Your task to perform on an android device: uninstall "Yahoo Mail" Image 0: 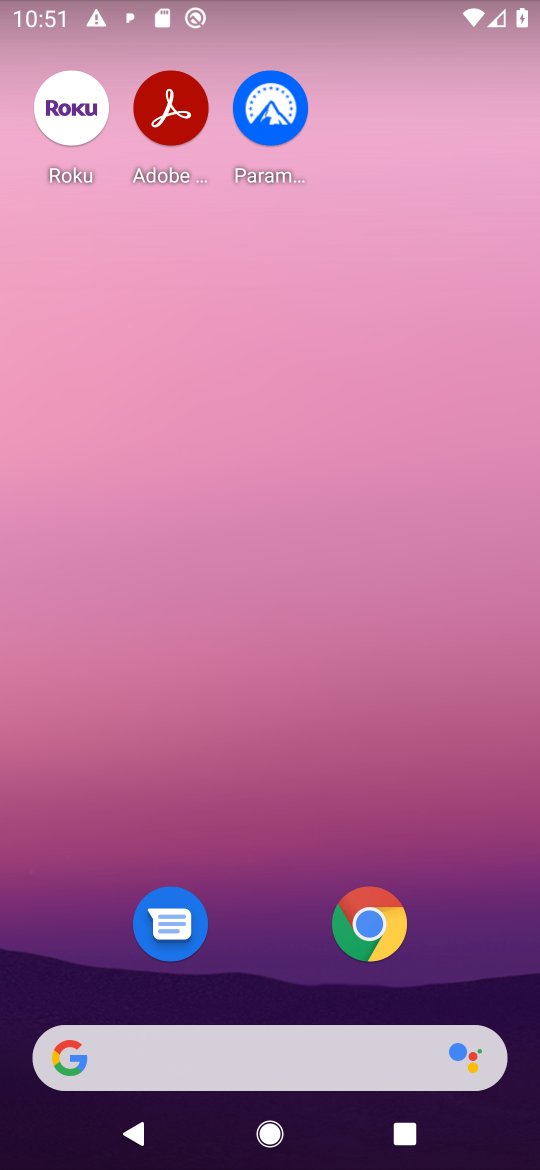
Step 0: press home button
Your task to perform on an android device: uninstall "Yahoo Mail" Image 1: 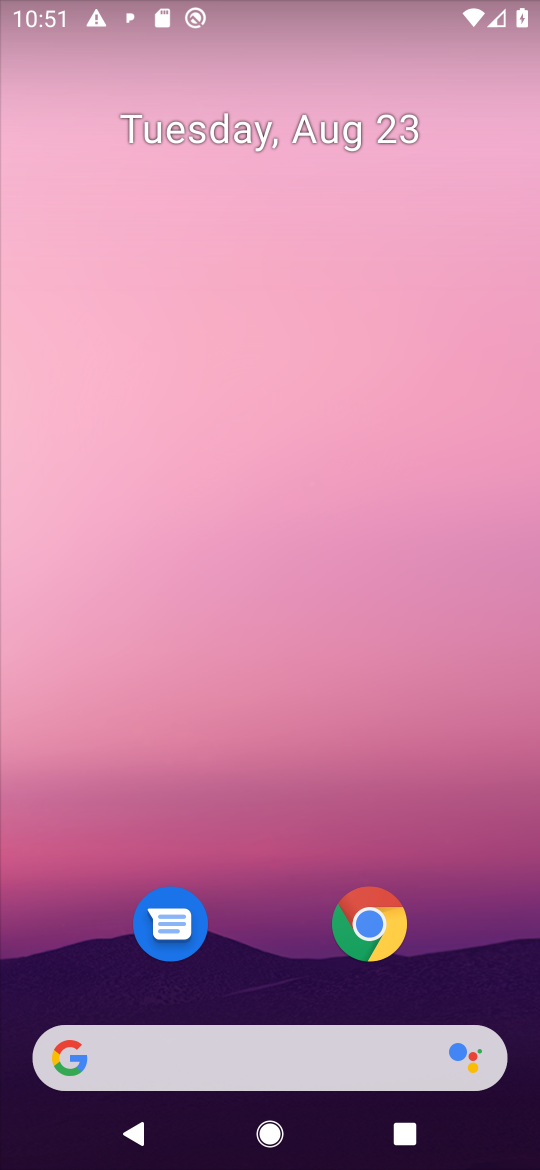
Step 1: drag from (454, 971) to (471, 111)
Your task to perform on an android device: uninstall "Yahoo Mail" Image 2: 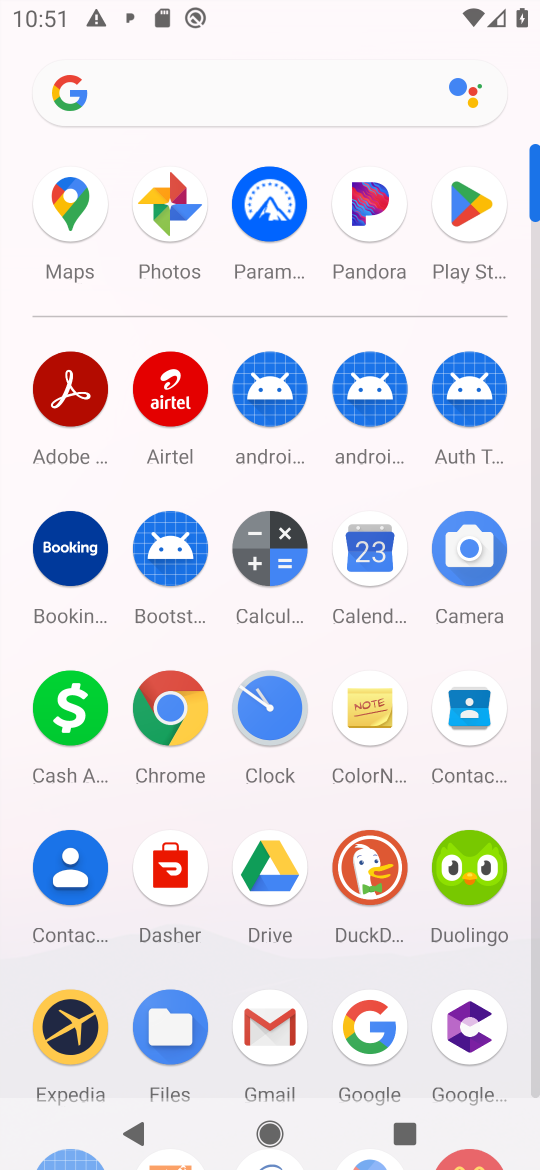
Step 2: click (463, 212)
Your task to perform on an android device: uninstall "Yahoo Mail" Image 3: 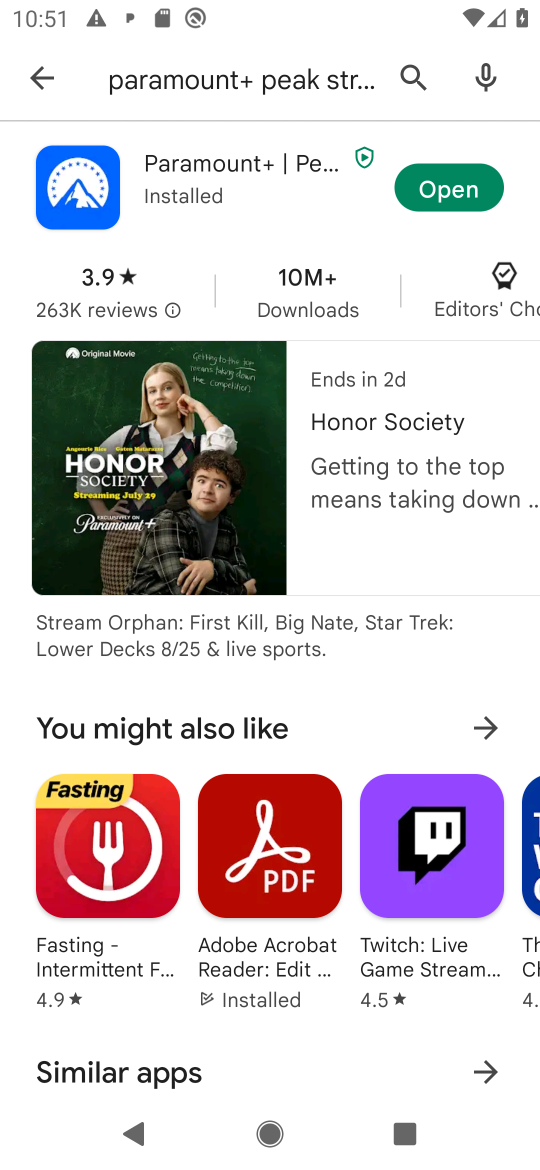
Step 3: press back button
Your task to perform on an android device: uninstall "Yahoo Mail" Image 4: 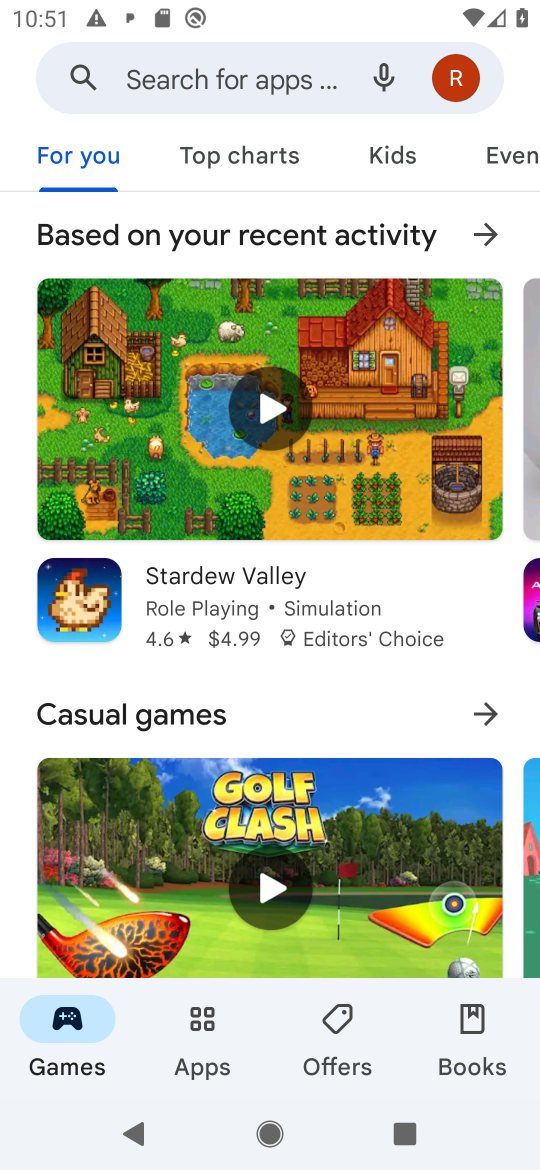
Step 4: click (277, 81)
Your task to perform on an android device: uninstall "Yahoo Mail" Image 5: 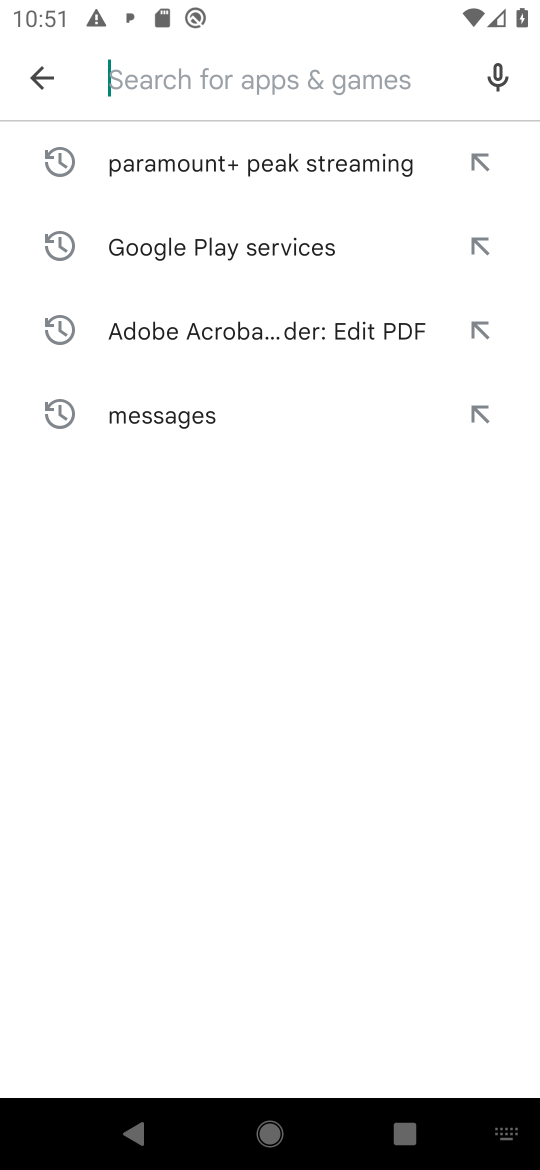
Step 5: type "yahoo mail"
Your task to perform on an android device: uninstall "Yahoo Mail" Image 6: 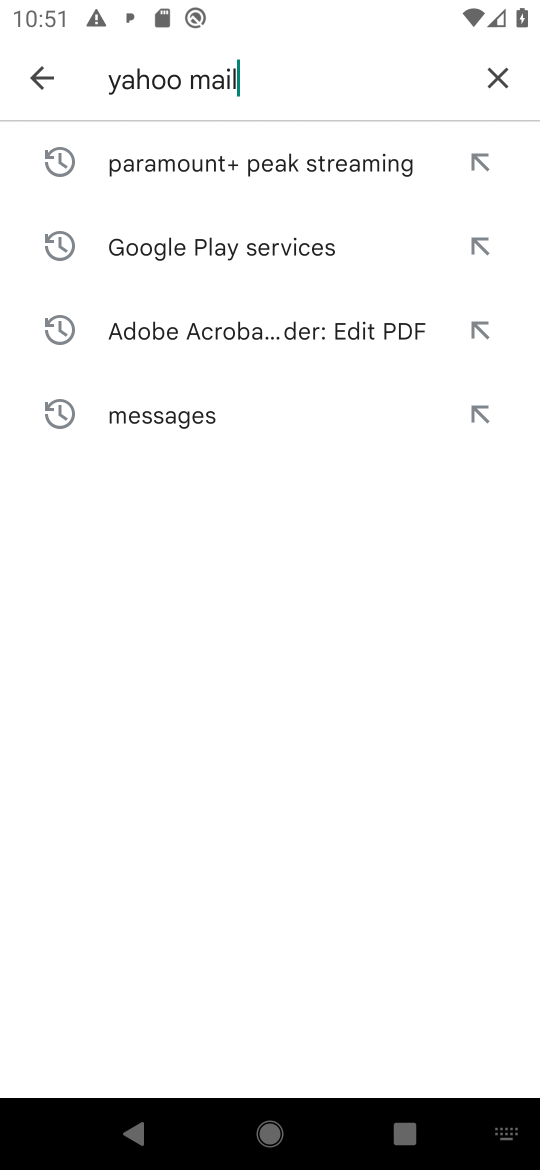
Step 6: press enter
Your task to perform on an android device: uninstall "Yahoo Mail" Image 7: 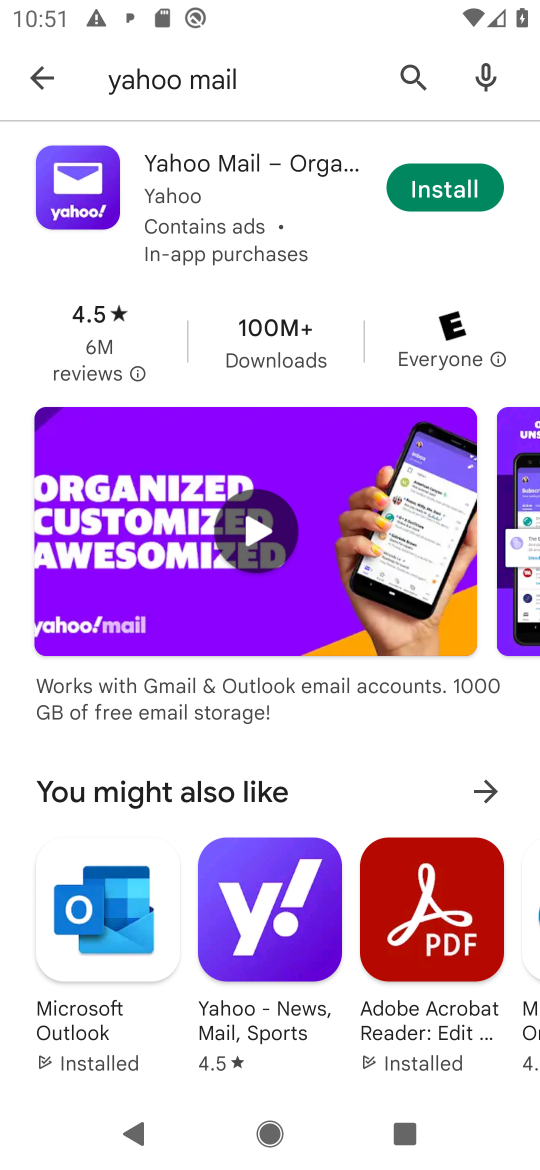
Step 7: task complete